Your task to perform on an android device: Open network settings Image 0: 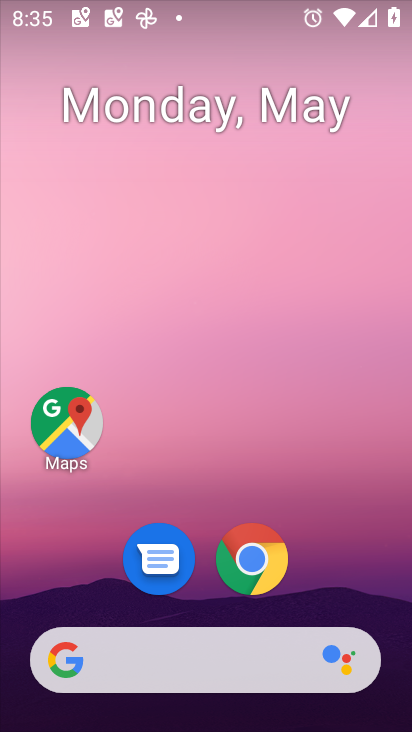
Step 0: drag from (390, 646) to (246, 66)
Your task to perform on an android device: Open network settings Image 1: 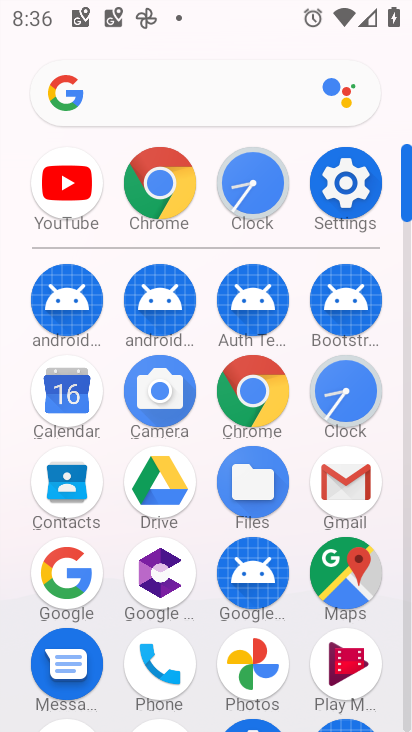
Step 1: click (337, 192)
Your task to perform on an android device: Open network settings Image 2: 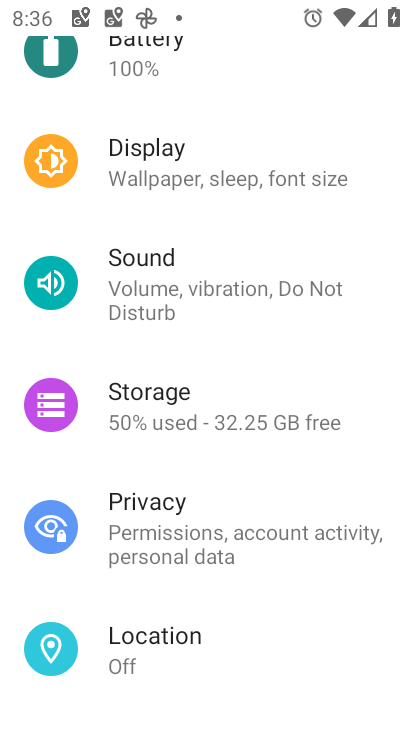
Step 2: drag from (242, 159) to (247, 728)
Your task to perform on an android device: Open network settings Image 3: 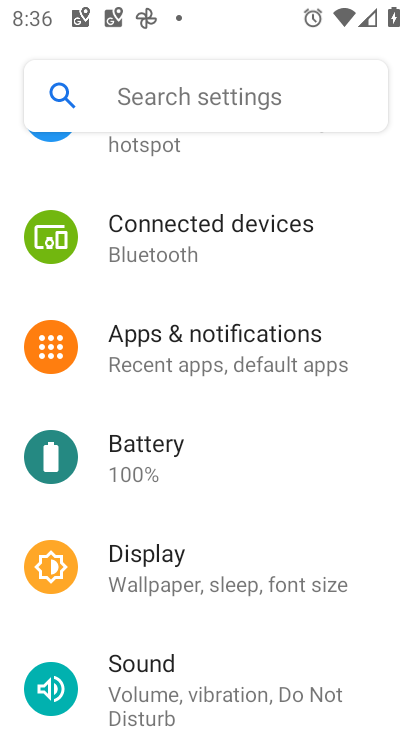
Step 3: drag from (185, 231) to (223, 629)
Your task to perform on an android device: Open network settings Image 4: 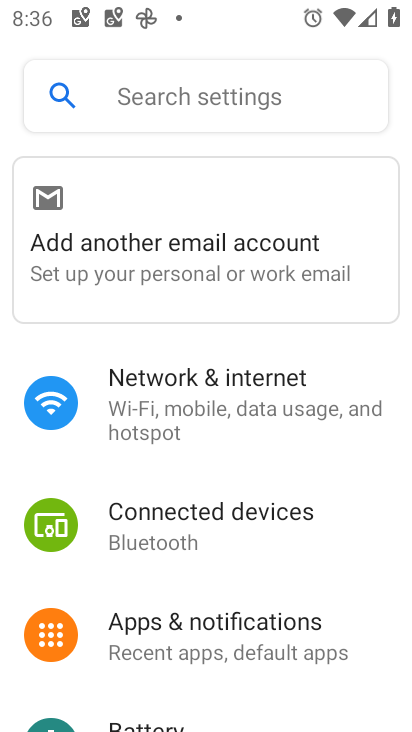
Step 4: click (154, 402)
Your task to perform on an android device: Open network settings Image 5: 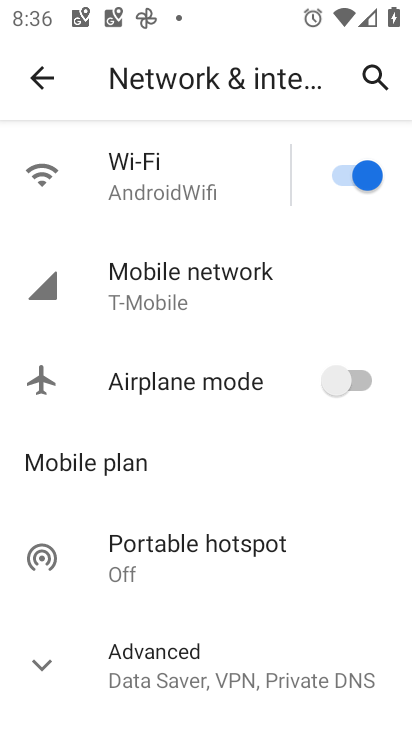
Step 5: task complete